Your task to perform on an android device: Show me popular videos on Youtube Image 0: 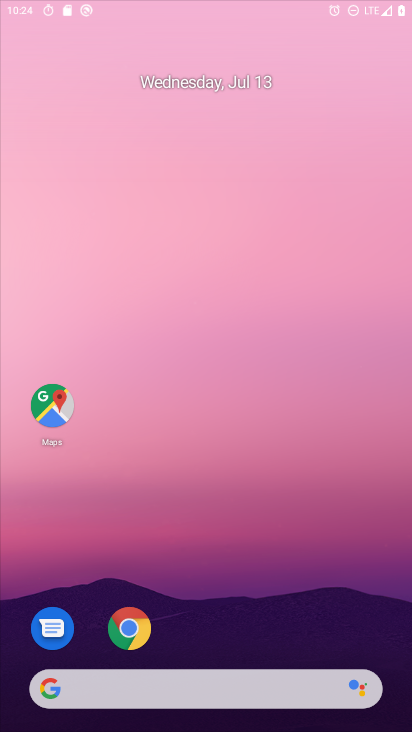
Step 0: drag from (353, 647) to (246, 52)
Your task to perform on an android device: Show me popular videos on Youtube Image 1: 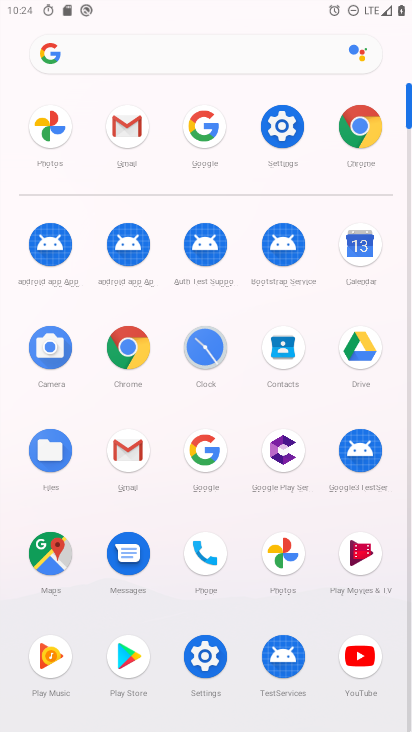
Step 1: click (341, 664)
Your task to perform on an android device: Show me popular videos on Youtube Image 2: 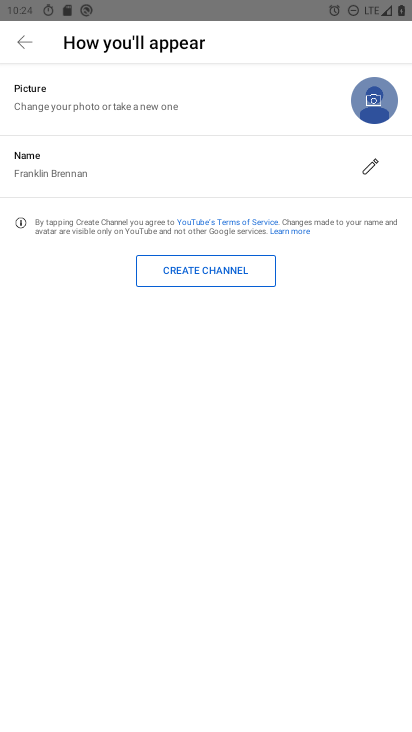
Step 2: press back button
Your task to perform on an android device: Show me popular videos on Youtube Image 3: 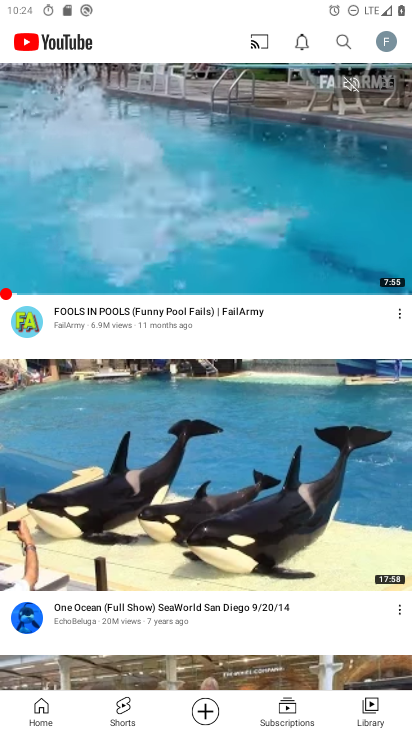
Step 3: click (362, 710)
Your task to perform on an android device: Show me popular videos on Youtube Image 4: 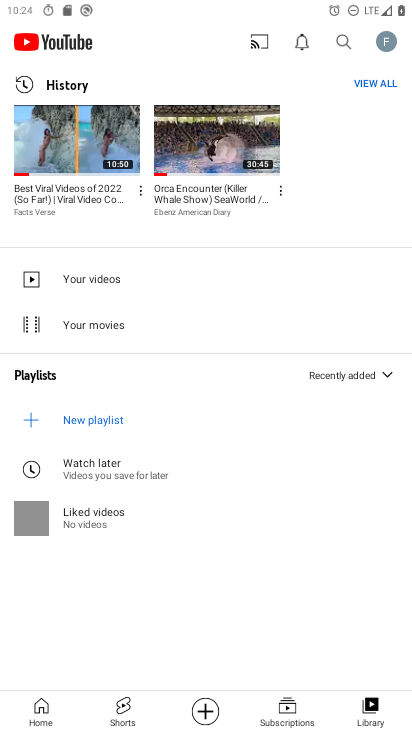
Step 4: task complete